Your task to perform on an android device: find snoozed emails in the gmail app Image 0: 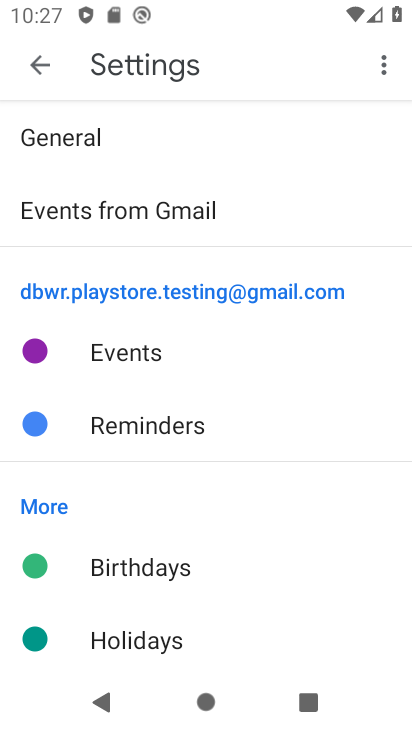
Step 0: press home button
Your task to perform on an android device: find snoozed emails in the gmail app Image 1: 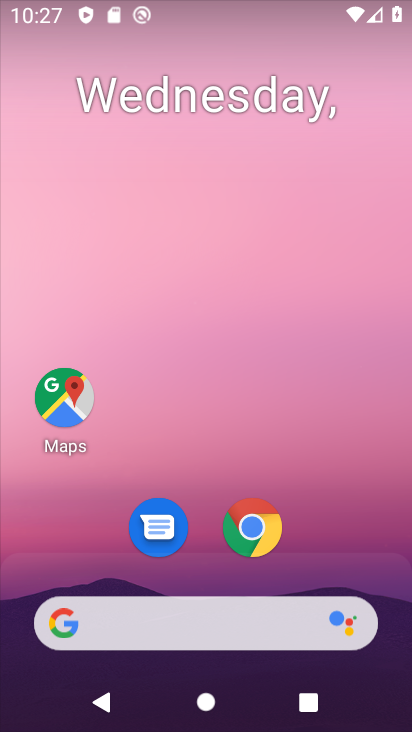
Step 1: drag from (381, 569) to (362, 18)
Your task to perform on an android device: find snoozed emails in the gmail app Image 2: 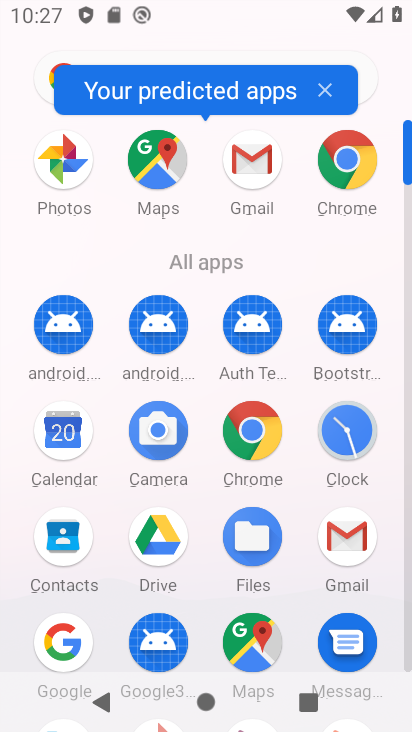
Step 2: click (248, 182)
Your task to perform on an android device: find snoozed emails in the gmail app Image 3: 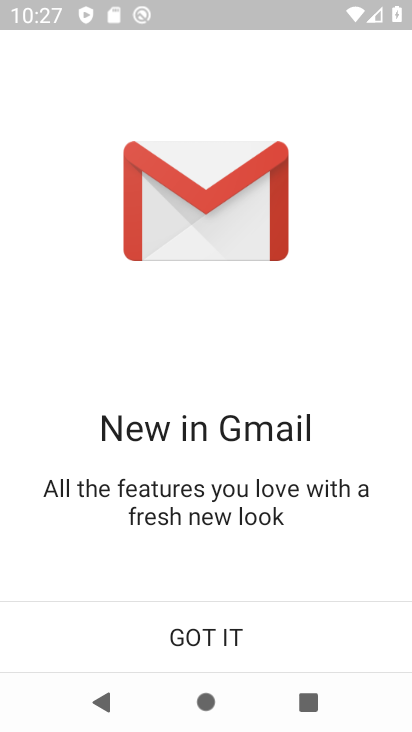
Step 3: click (203, 644)
Your task to perform on an android device: find snoozed emails in the gmail app Image 4: 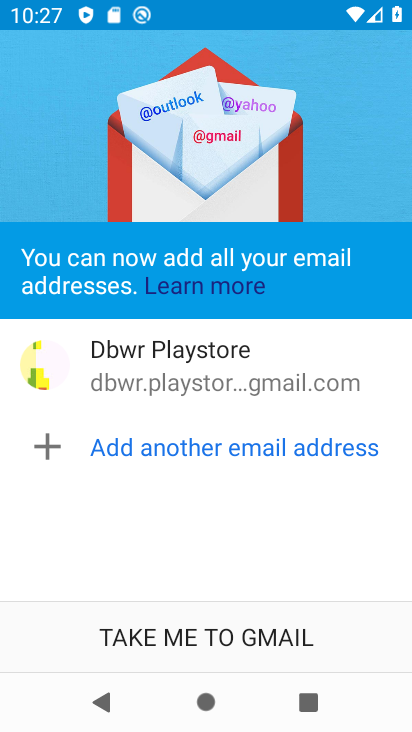
Step 4: click (203, 644)
Your task to perform on an android device: find snoozed emails in the gmail app Image 5: 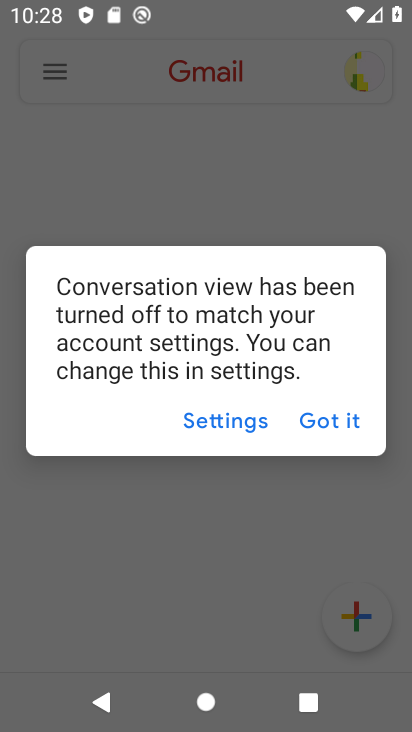
Step 5: click (315, 429)
Your task to perform on an android device: find snoozed emails in the gmail app Image 6: 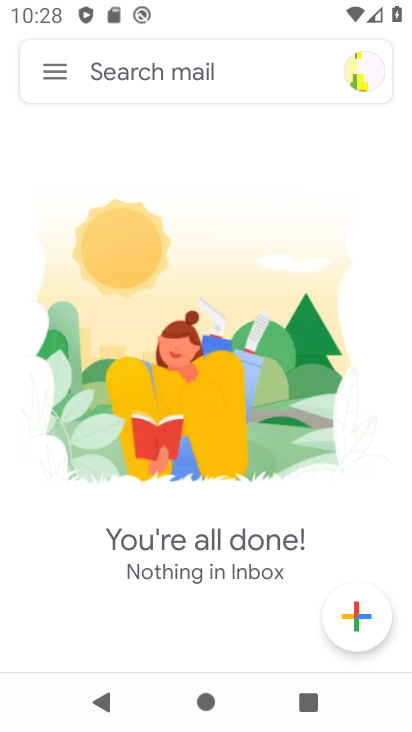
Step 6: click (47, 77)
Your task to perform on an android device: find snoozed emails in the gmail app Image 7: 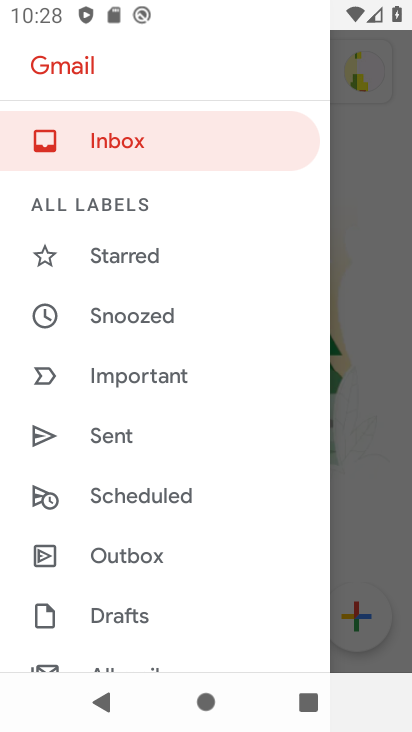
Step 7: click (125, 322)
Your task to perform on an android device: find snoozed emails in the gmail app Image 8: 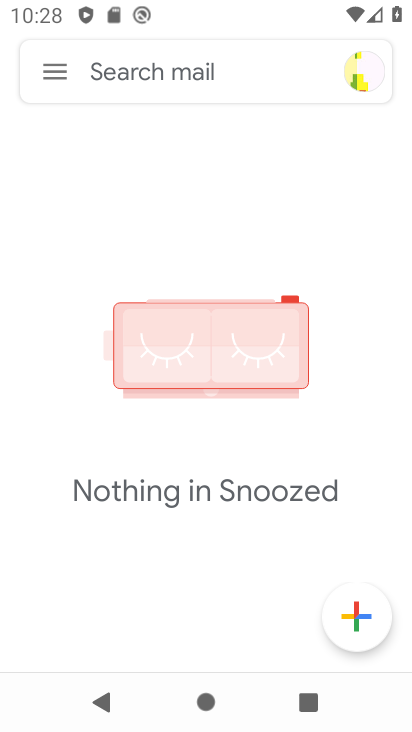
Step 8: task complete